Your task to perform on an android device: all mails in gmail Image 0: 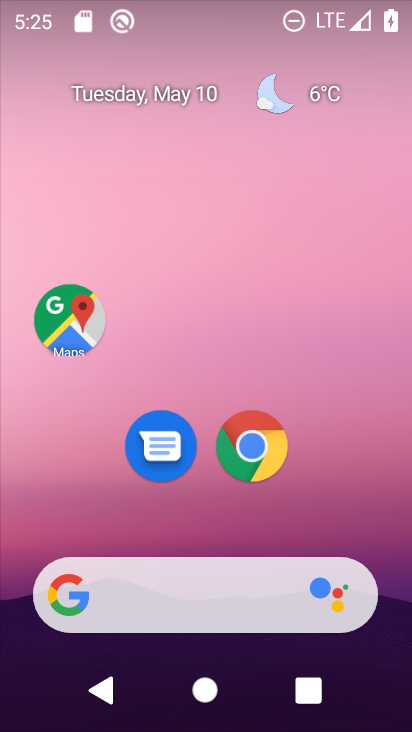
Step 0: drag from (288, 411) to (264, 80)
Your task to perform on an android device: all mails in gmail Image 1: 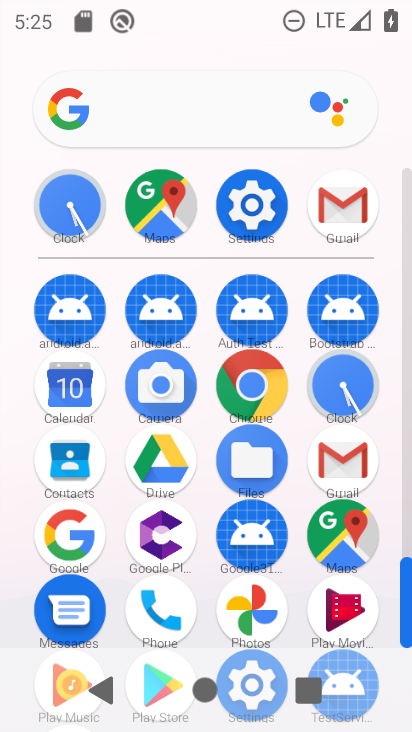
Step 1: click (347, 461)
Your task to perform on an android device: all mails in gmail Image 2: 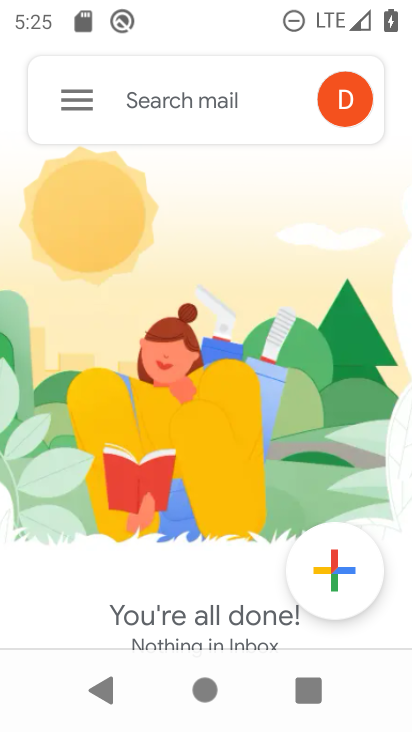
Step 2: click (77, 103)
Your task to perform on an android device: all mails in gmail Image 3: 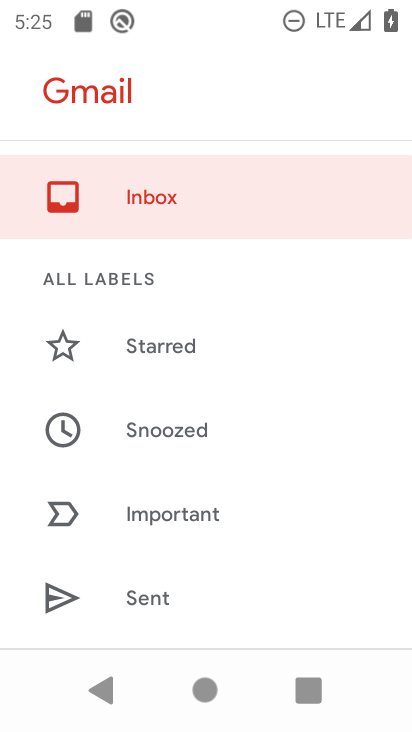
Step 3: drag from (247, 555) to (240, 97)
Your task to perform on an android device: all mails in gmail Image 4: 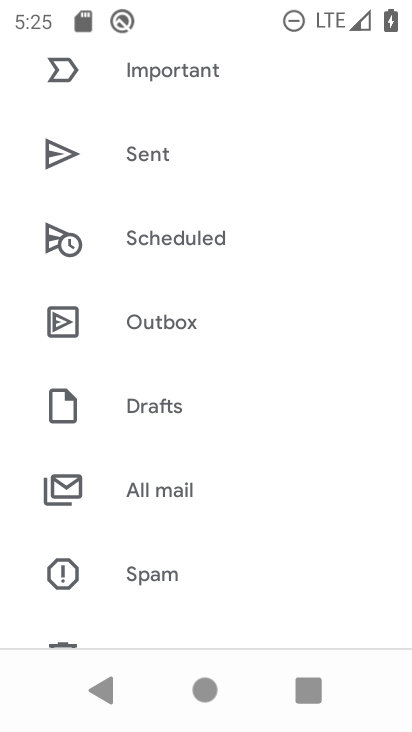
Step 4: click (193, 479)
Your task to perform on an android device: all mails in gmail Image 5: 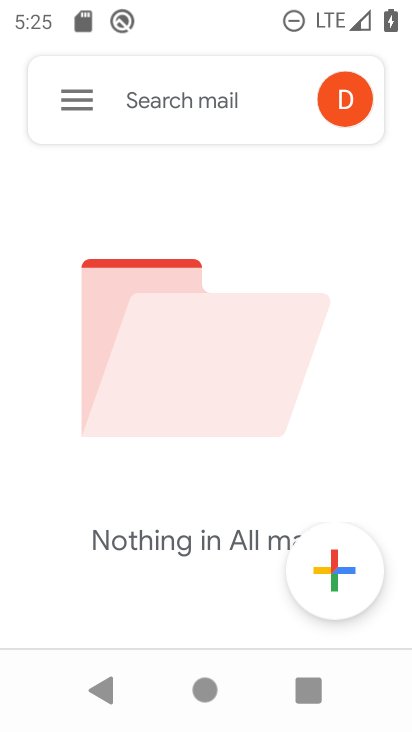
Step 5: task complete